Your task to perform on an android device: Go to Amazon Image 0: 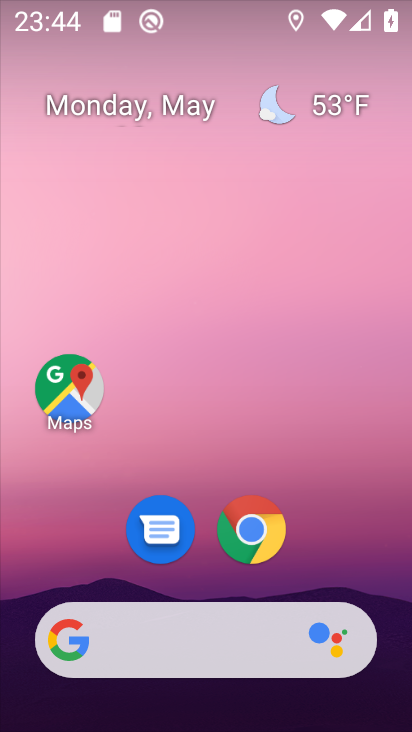
Step 0: click (265, 532)
Your task to perform on an android device: Go to Amazon Image 1: 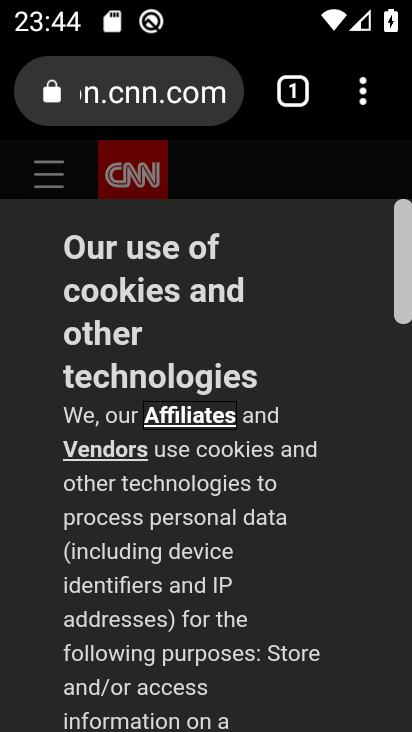
Step 1: click (307, 94)
Your task to perform on an android device: Go to Amazon Image 2: 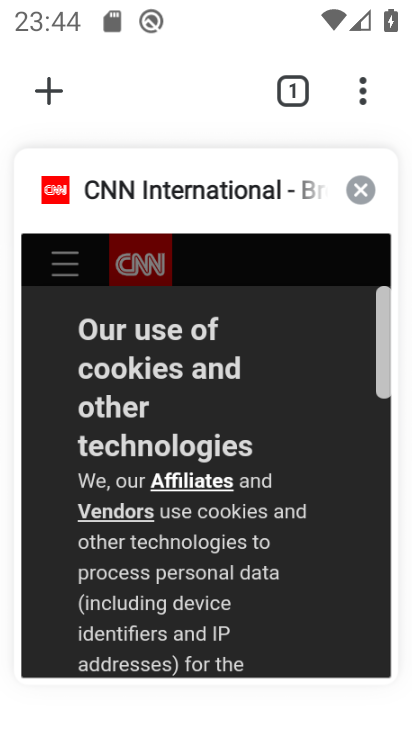
Step 2: click (55, 91)
Your task to perform on an android device: Go to Amazon Image 3: 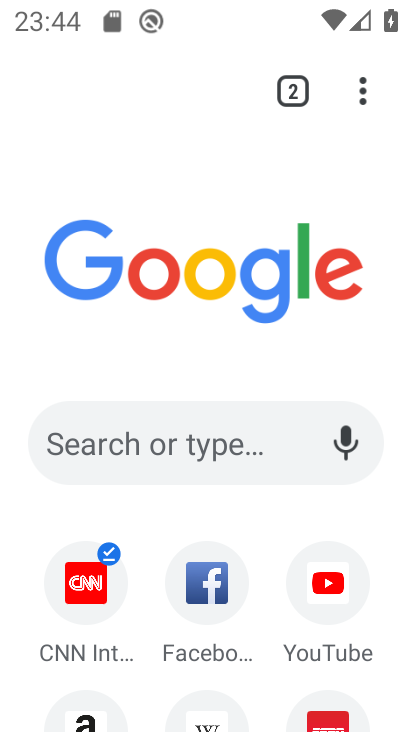
Step 3: click (89, 717)
Your task to perform on an android device: Go to Amazon Image 4: 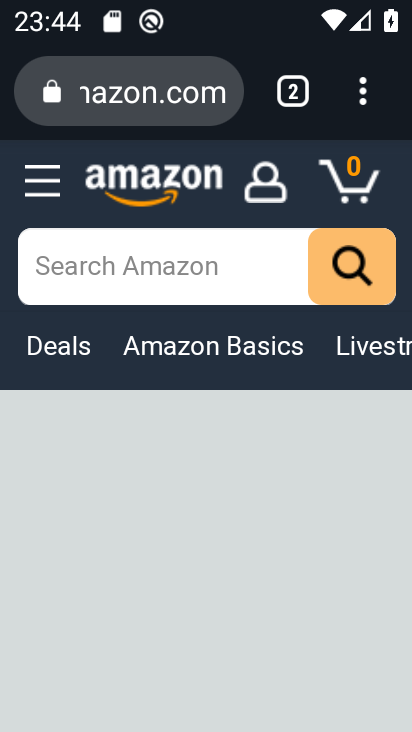
Step 4: task complete